Your task to perform on an android device: Open calendar and show me the third week of next month Image 0: 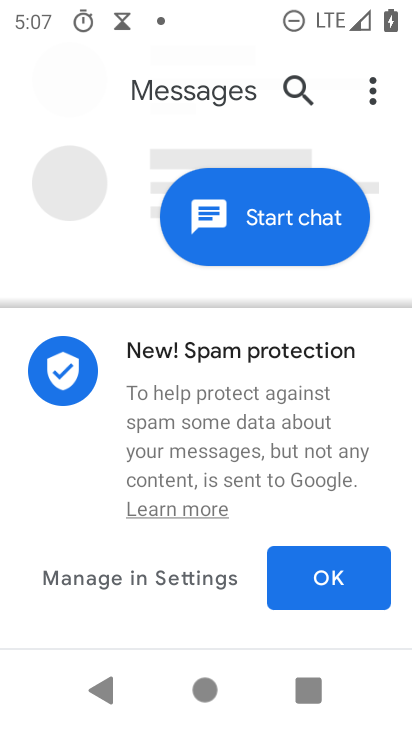
Step 0: press home button
Your task to perform on an android device: Open calendar and show me the third week of next month Image 1: 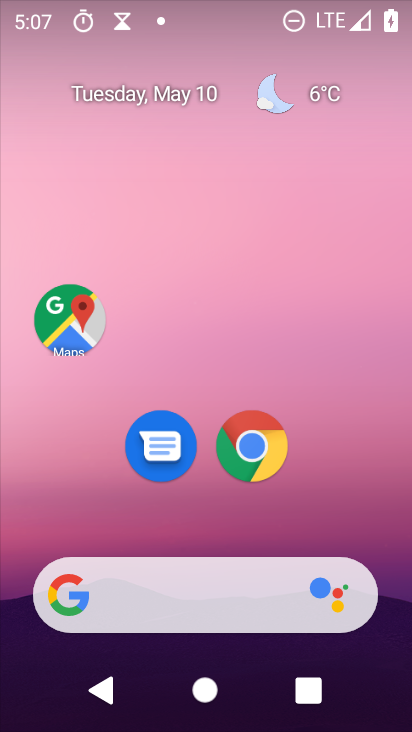
Step 1: drag from (249, 532) to (159, 88)
Your task to perform on an android device: Open calendar and show me the third week of next month Image 2: 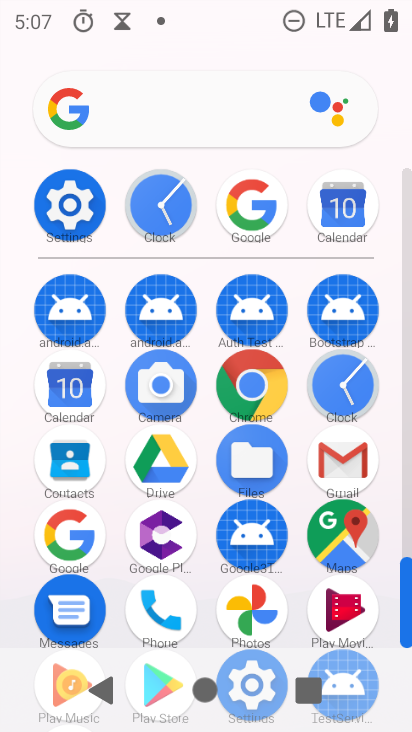
Step 2: click (76, 385)
Your task to perform on an android device: Open calendar and show me the third week of next month Image 3: 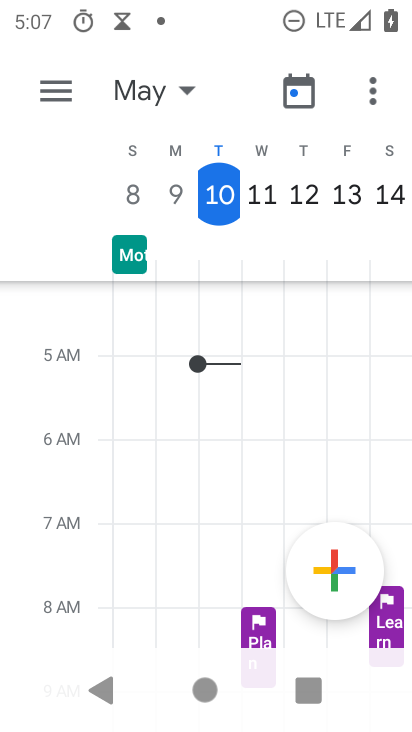
Step 3: click (170, 88)
Your task to perform on an android device: Open calendar and show me the third week of next month Image 4: 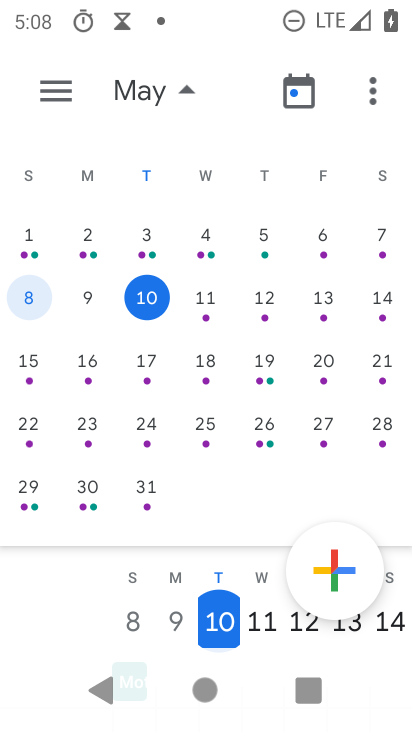
Step 4: drag from (358, 351) to (5, 357)
Your task to perform on an android device: Open calendar and show me the third week of next month Image 5: 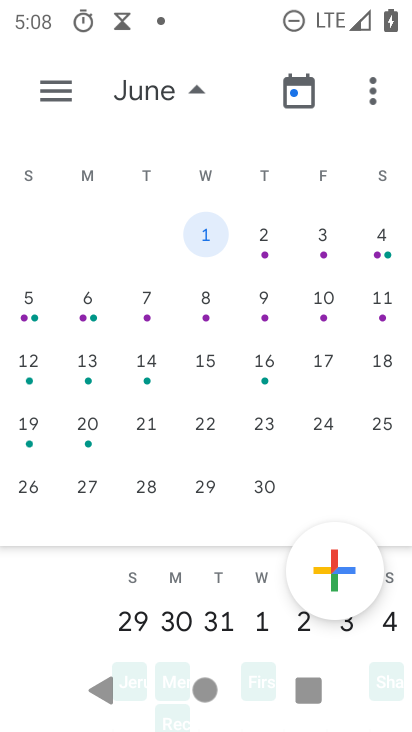
Step 5: click (42, 370)
Your task to perform on an android device: Open calendar and show me the third week of next month Image 6: 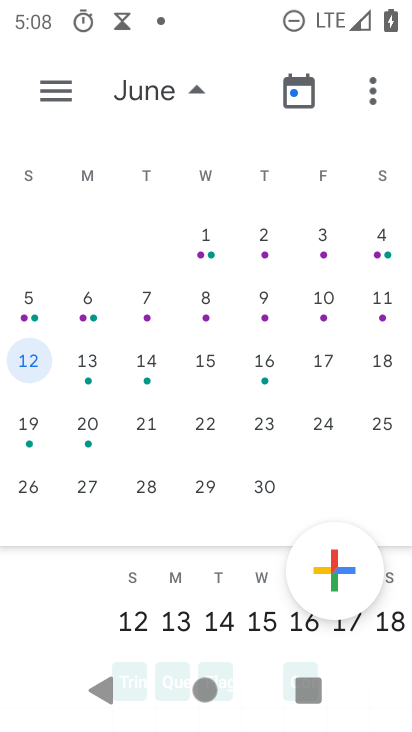
Step 6: task complete